Your task to perform on an android device: Open the Play Movies app and select the watchlist tab. Image 0: 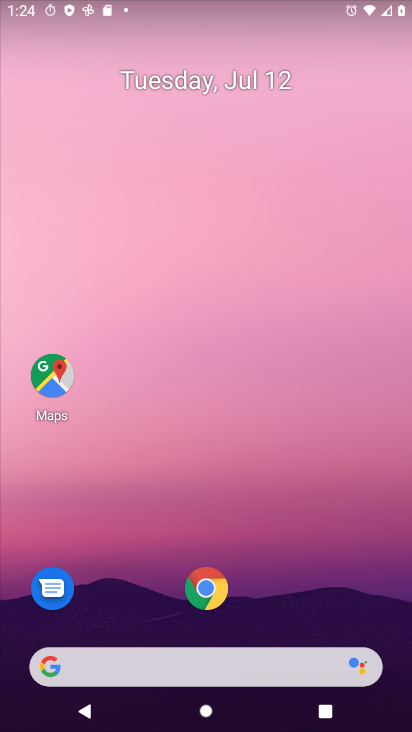
Step 0: drag from (181, 662) to (300, 191)
Your task to perform on an android device: Open the Play Movies app and select the watchlist tab. Image 1: 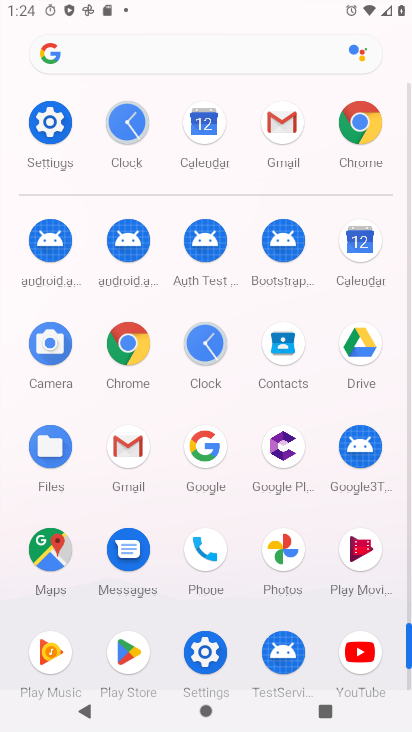
Step 1: click (356, 556)
Your task to perform on an android device: Open the Play Movies app and select the watchlist tab. Image 2: 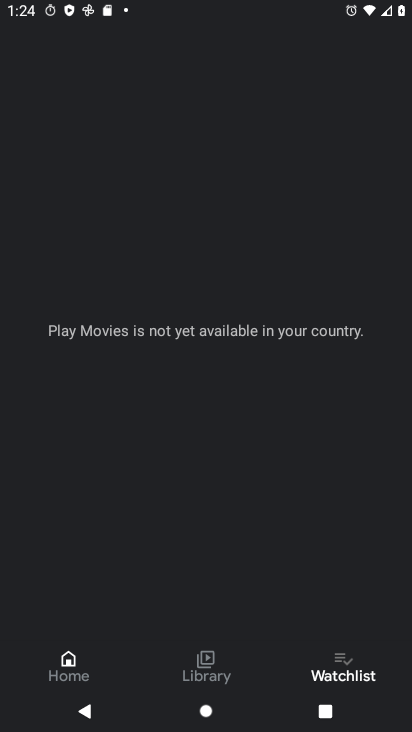
Step 2: click (358, 666)
Your task to perform on an android device: Open the Play Movies app and select the watchlist tab. Image 3: 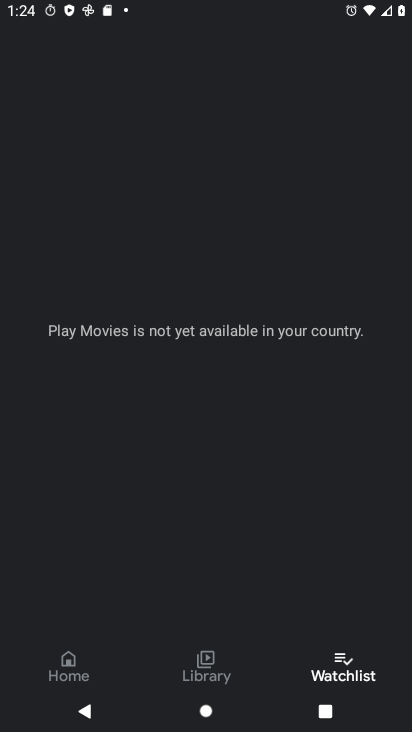
Step 3: task complete